Your task to perform on an android device: turn off smart reply in the gmail app Image 0: 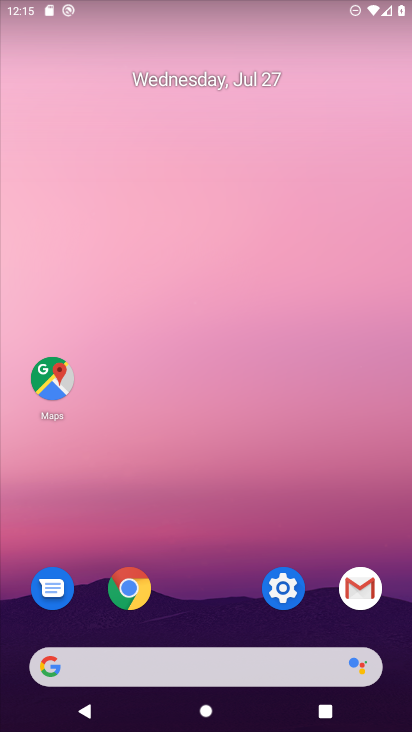
Step 0: click (346, 598)
Your task to perform on an android device: turn off smart reply in the gmail app Image 1: 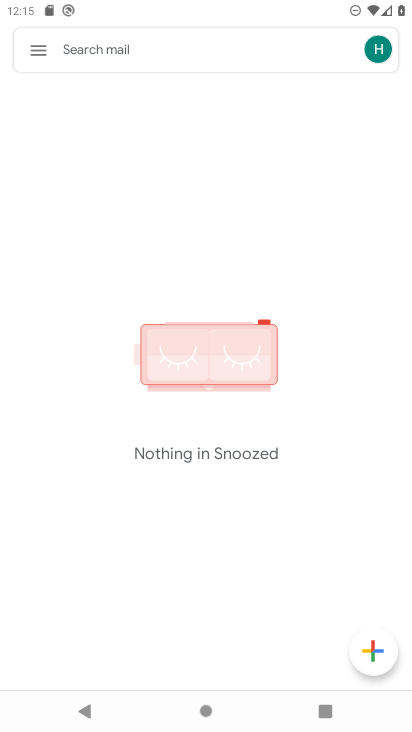
Step 1: click (37, 52)
Your task to perform on an android device: turn off smart reply in the gmail app Image 2: 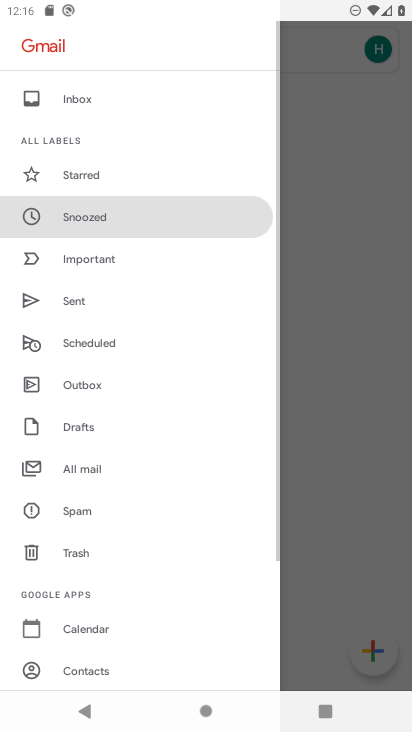
Step 2: drag from (91, 619) to (143, 522)
Your task to perform on an android device: turn off smart reply in the gmail app Image 3: 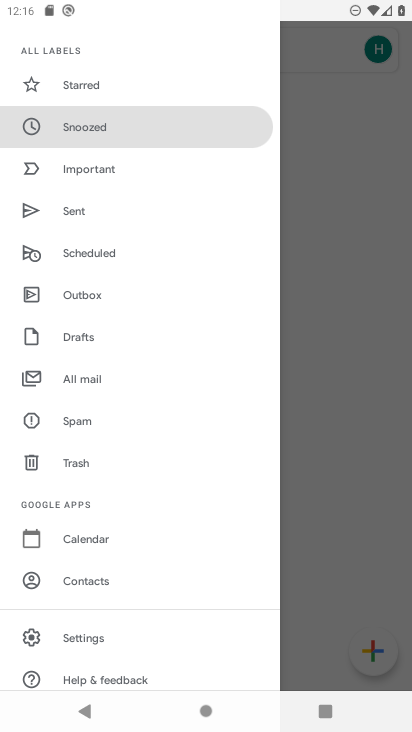
Step 3: click (95, 638)
Your task to perform on an android device: turn off smart reply in the gmail app Image 4: 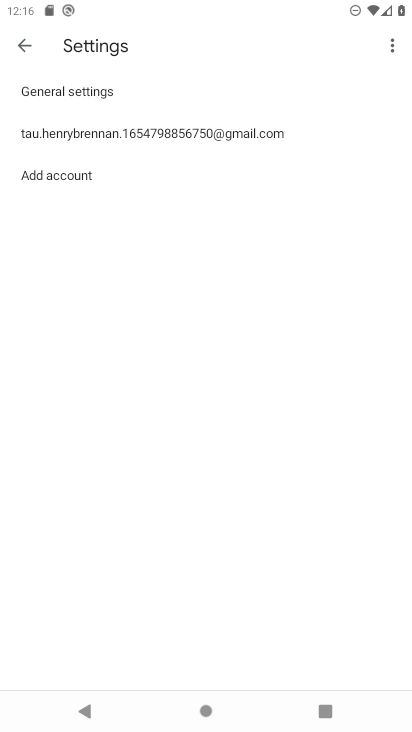
Step 4: click (129, 137)
Your task to perform on an android device: turn off smart reply in the gmail app Image 5: 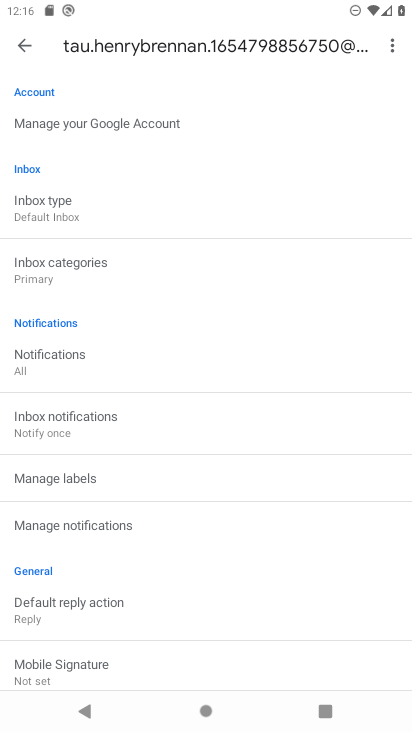
Step 5: drag from (125, 652) to (208, 293)
Your task to perform on an android device: turn off smart reply in the gmail app Image 6: 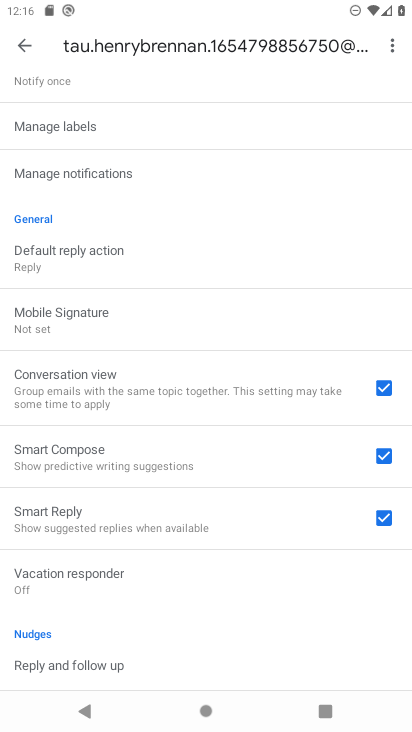
Step 6: click (125, 518)
Your task to perform on an android device: turn off smart reply in the gmail app Image 7: 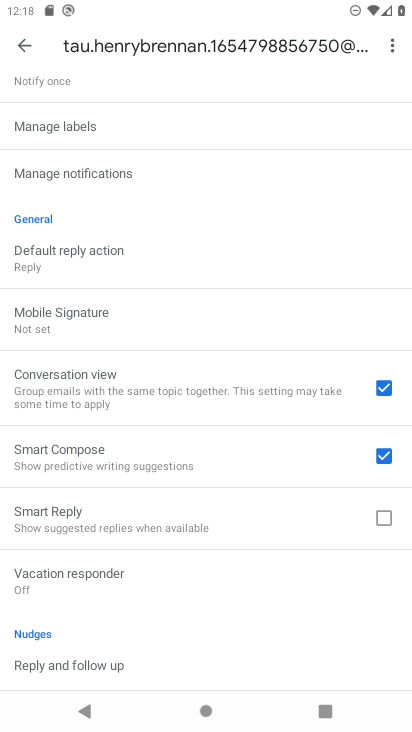
Step 7: task complete